Your task to perform on an android device: turn vacation reply on in the gmail app Image 0: 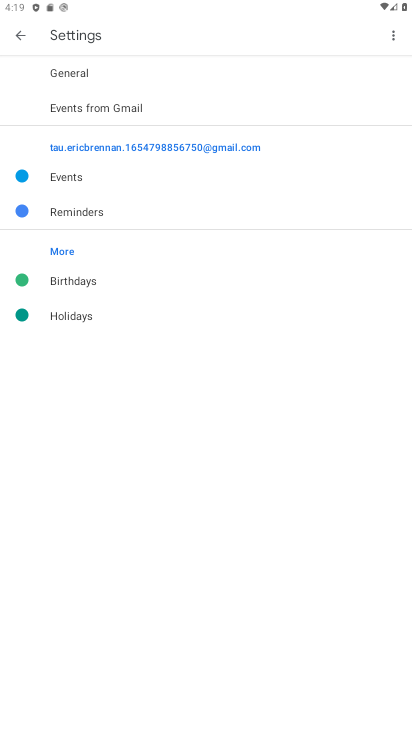
Step 0: press home button
Your task to perform on an android device: turn vacation reply on in the gmail app Image 1: 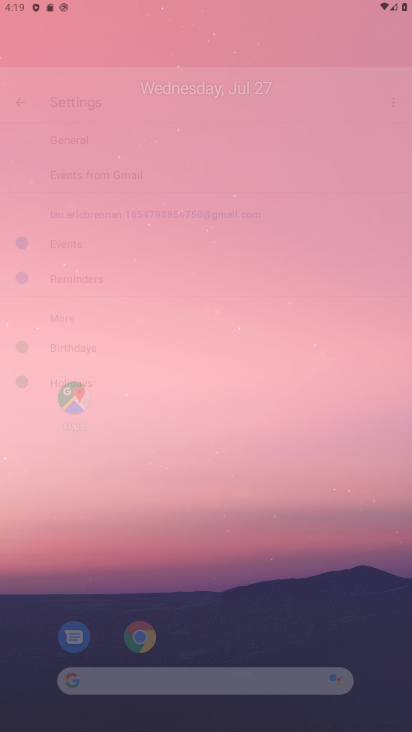
Step 1: drag from (325, 694) to (279, 380)
Your task to perform on an android device: turn vacation reply on in the gmail app Image 2: 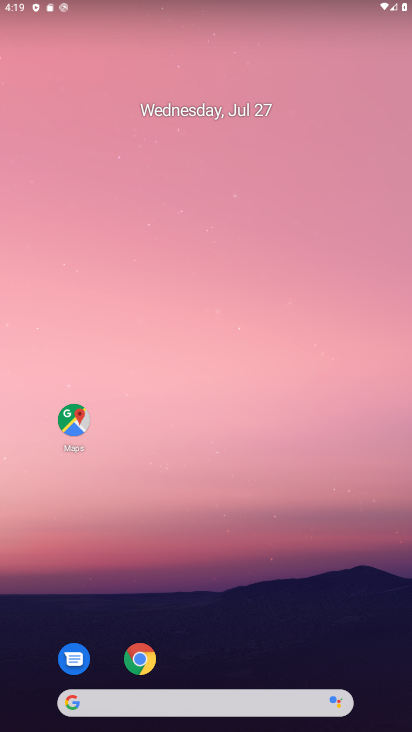
Step 2: drag from (242, 562) to (221, 34)
Your task to perform on an android device: turn vacation reply on in the gmail app Image 3: 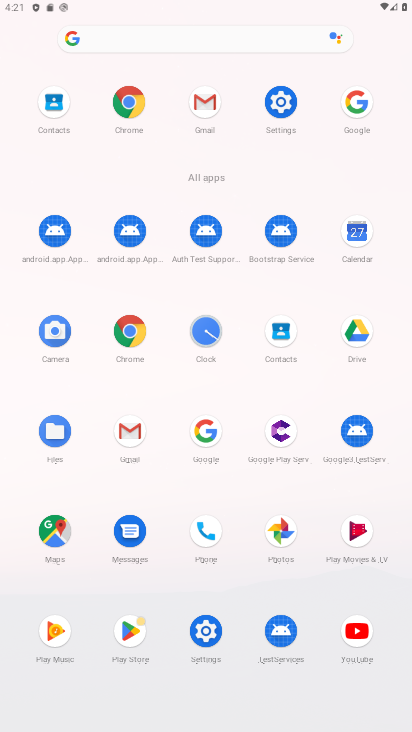
Step 3: click (142, 446)
Your task to perform on an android device: turn vacation reply on in the gmail app Image 4: 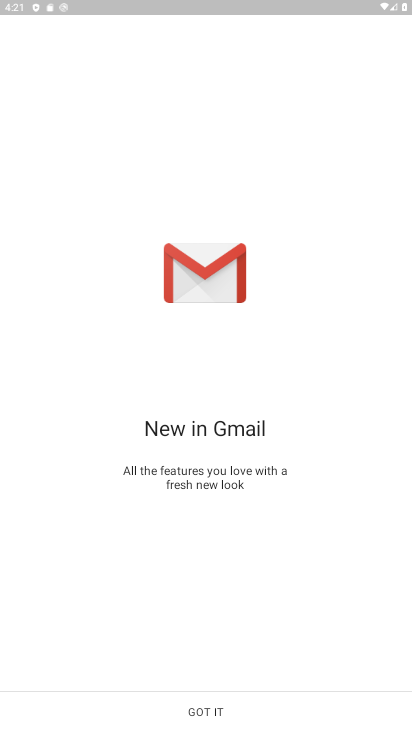
Step 4: click (238, 696)
Your task to perform on an android device: turn vacation reply on in the gmail app Image 5: 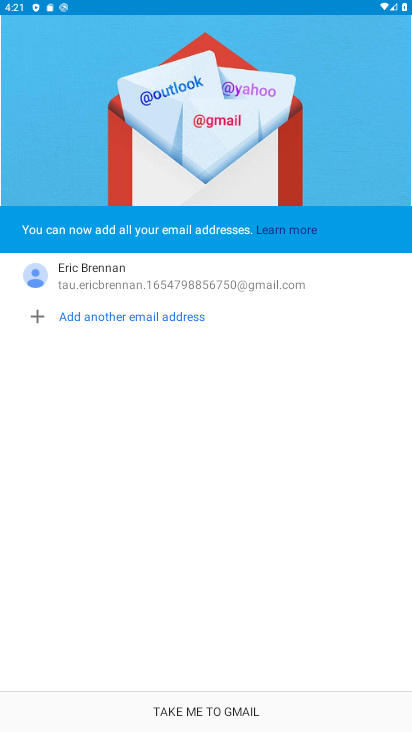
Step 5: click (241, 705)
Your task to perform on an android device: turn vacation reply on in the gmail app Image 6: 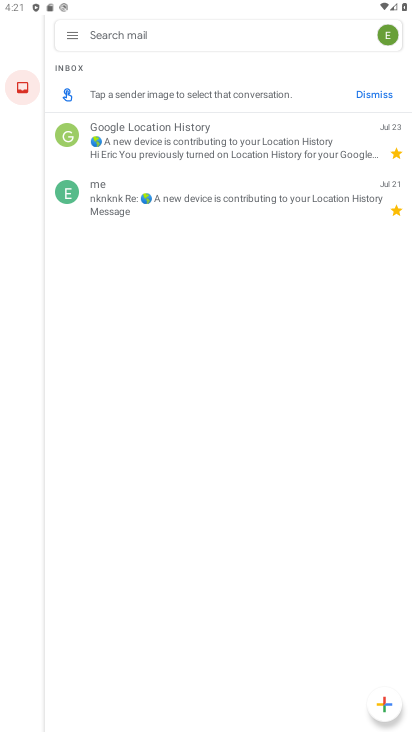
Step 6: click (70, 26)
Your task to perform on an android device: turn vacation reply on in the gmail app Image 7: 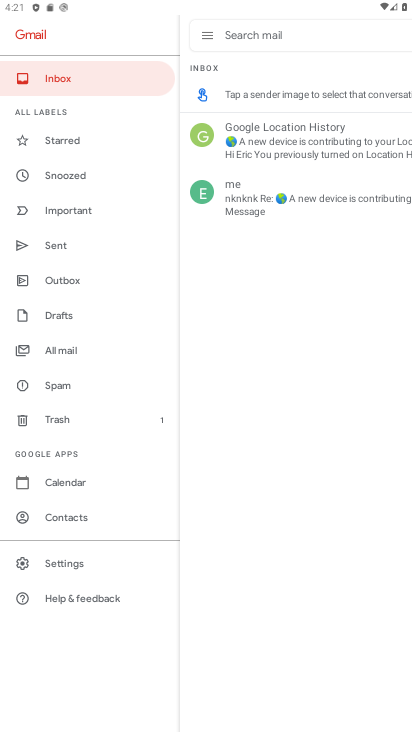
Step 7: click (56, 567)
Your task to perform on an android device: turn vacation reply on in the gmail app Image 8: 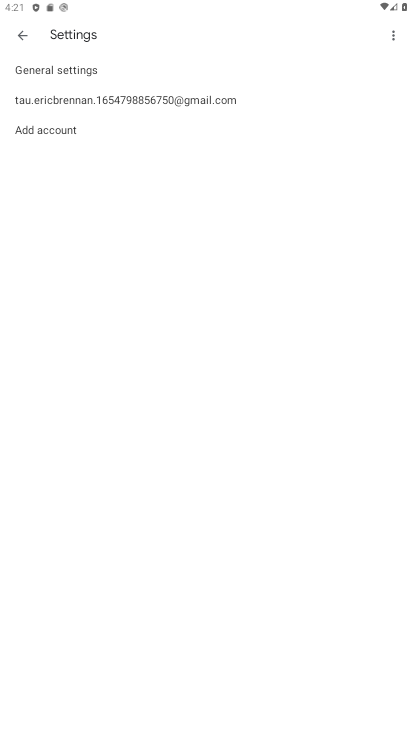
Step 8: click (63, 107)
Your task to perform on an android device: turn vacation reply on in the gmail app Image 9: 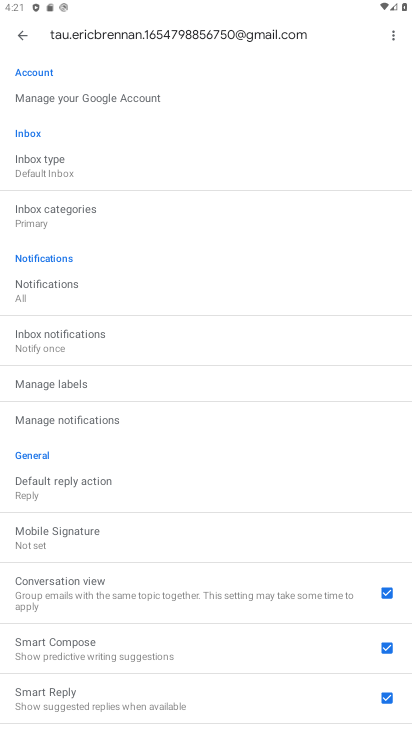
Step 9: drag from (100, 580) to (79, 115)
Your task to perform on an android device: turn vacation reply on in the gmail app Image 10: 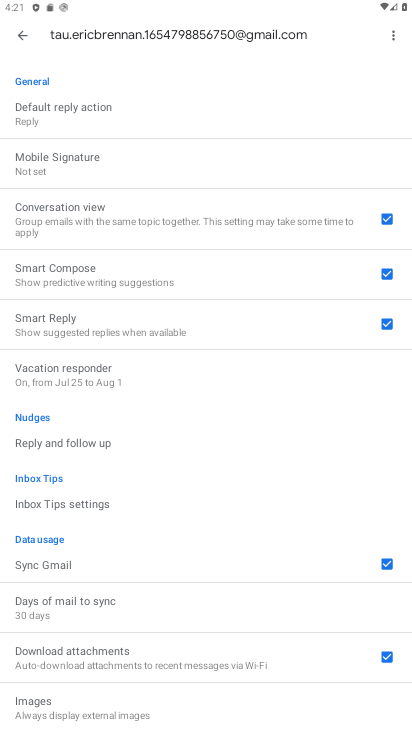
Step 10: click (93, 365)
Your task to perform on an android device: turn vacation reply on in the gmail app Image 11: 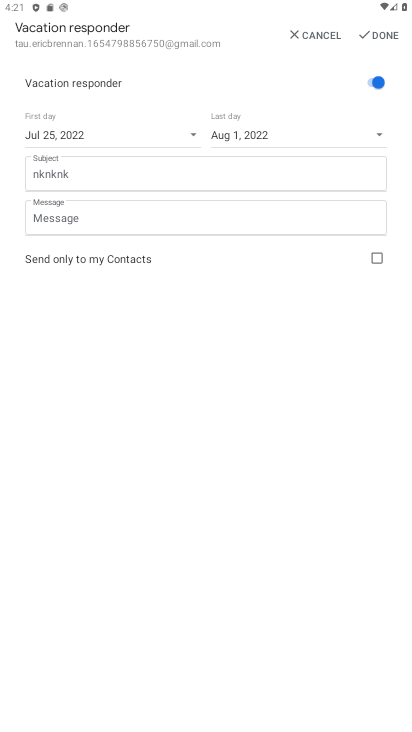
Step 11: click (110, 161)
Your task to perform on an android device: turn vacation reply on in the gmail app Image 12: 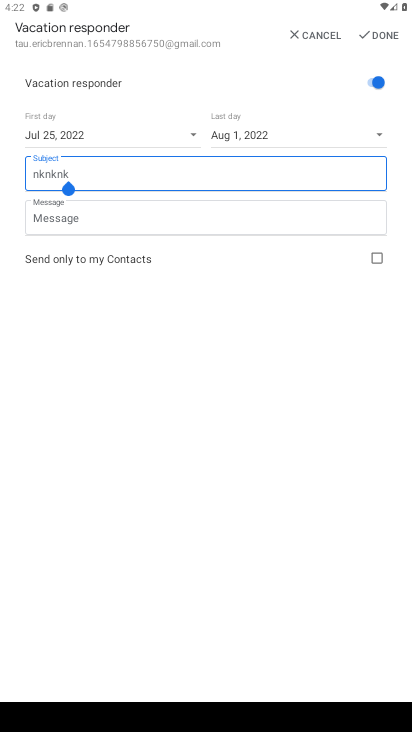
Step 12: click (110, 225)
Your task to perform on an android device: turn vacation reply on in the gmail app Image 13: 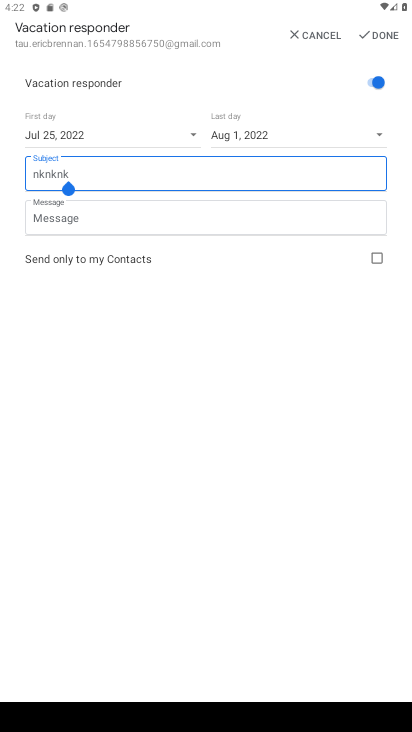
Step 13: click (110, 225)
Your task to perform on an android device: turn vacation reply on in the gmail app Image 14: 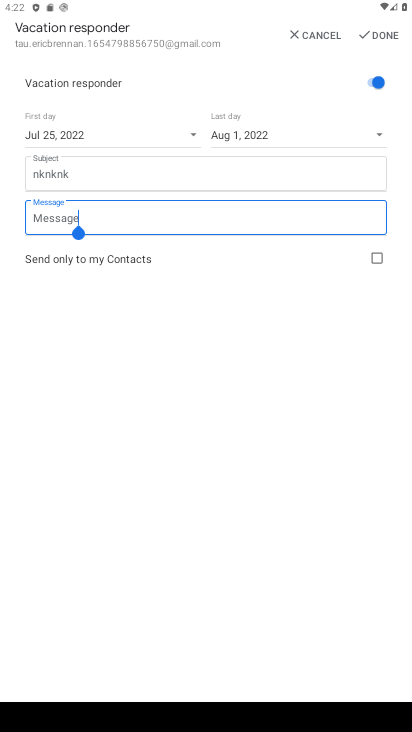
Step 14: click (110, 225)
Your task to perform on an android device: turn vacation reply on in the gmail app Image 15: 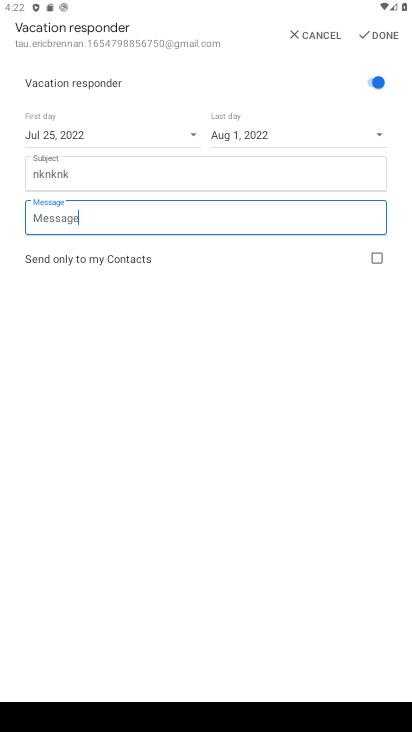
Step 15: type "nmbvvvbjhhvchjg"
Your task to perform on an android device: turn vacation reply on in the gmail app Image 16: 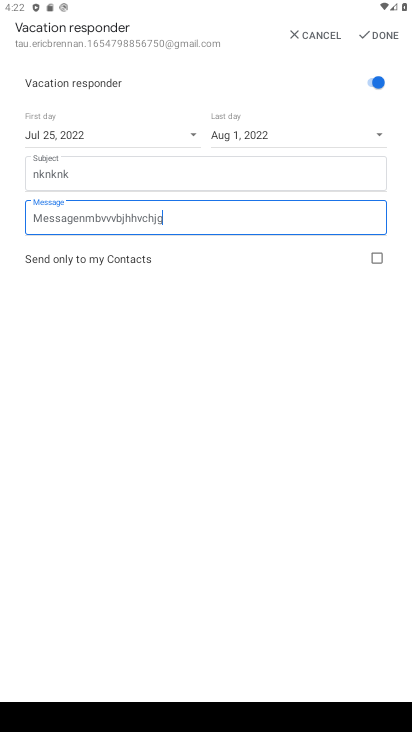
Step 16: click (386, 38)
Your task to perform on an android device: turn vacation reply on in the gmail app Image 17: 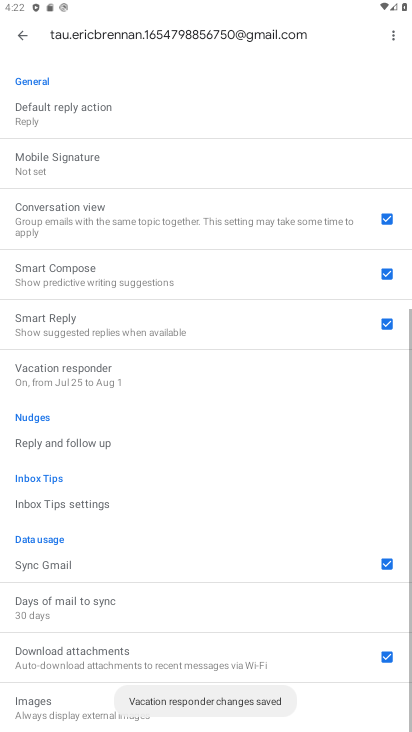
Step 17: task complete